Your task to perform on an android device: remove spam from my inbox in the gmail app Image 0: 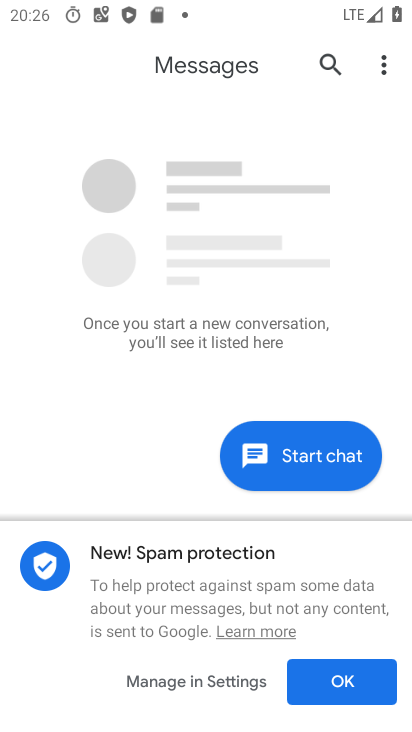
Step 0: press home button
Your task to perform on an android device: remove spam from my inbox in the gmail app Image 1: 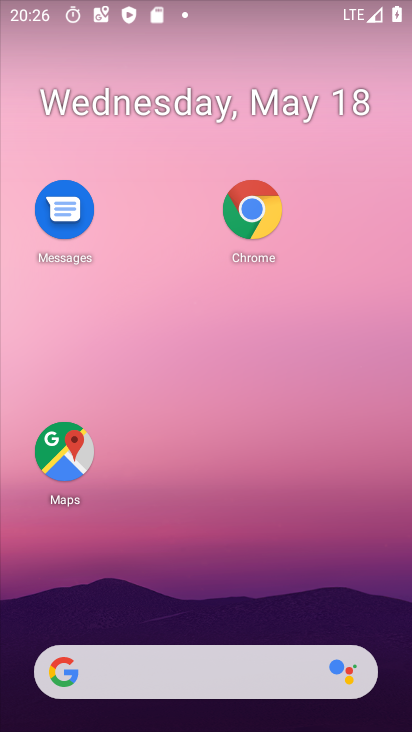
Step 1: drag from (188, 597) to (255, 85)
Your task to perform on an android device: remove spam from my inbox in the gmail app Image 2: 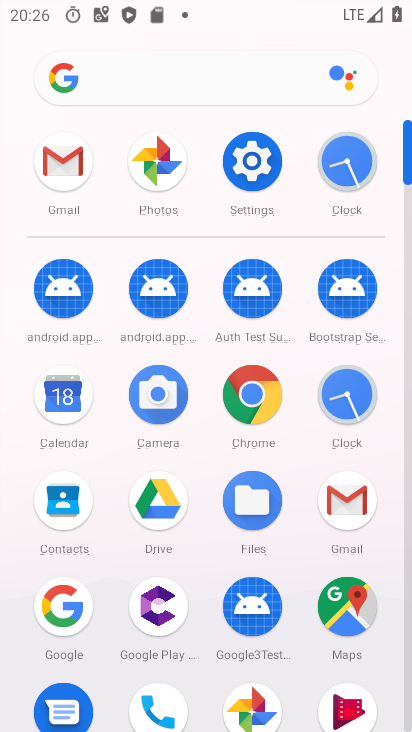
Step 2: click (72, 145)
Your task to perform on an android device: remove spam from my inbox in the gmail app Image 3: 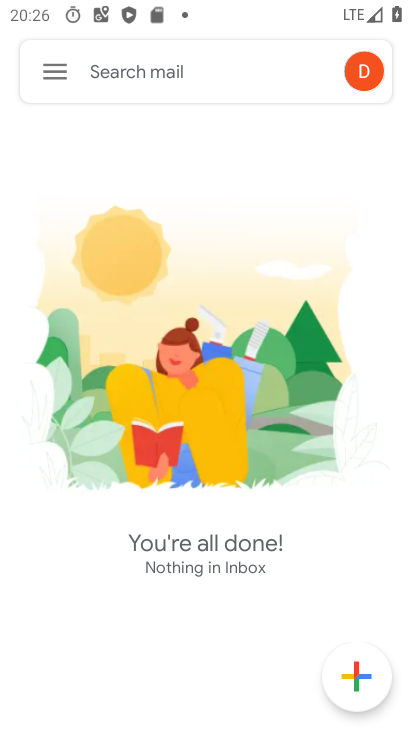
Step 3: click (56, 67)
Your task to perform on an android device: remove spam from my inbox in the gmail app Image 4: 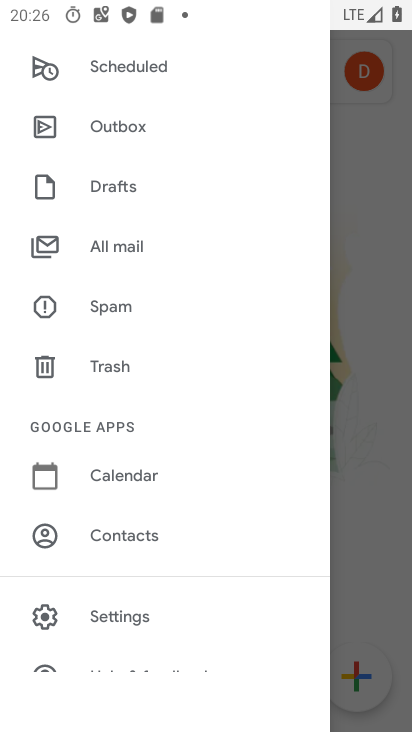
Step 4: click (138, 313)
Your task to perform on an android device: remove spam from my inbox in the gmail app Image 5: 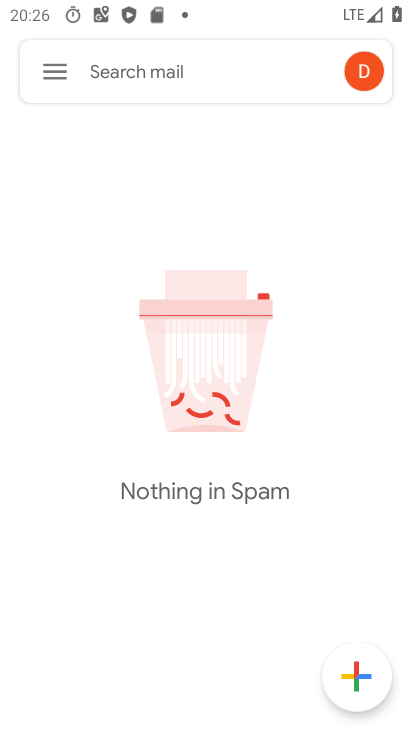
Step 5: task complete